Your task to perform on an android device: Go to ESPN.com Image 0: 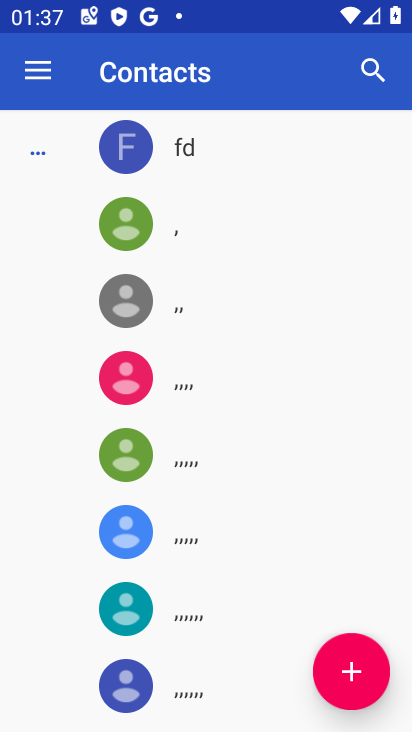
Step 0: press home button
Your task to perform on an android device: Go to ESPN.com Image 1: 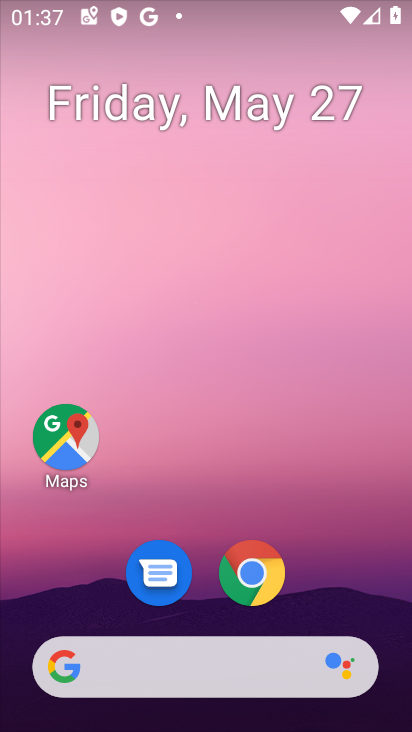
Step 1: drag from (215, 638) to (344, 13)
Your task to perform on an android device: Go to ESPN.com Image 2: 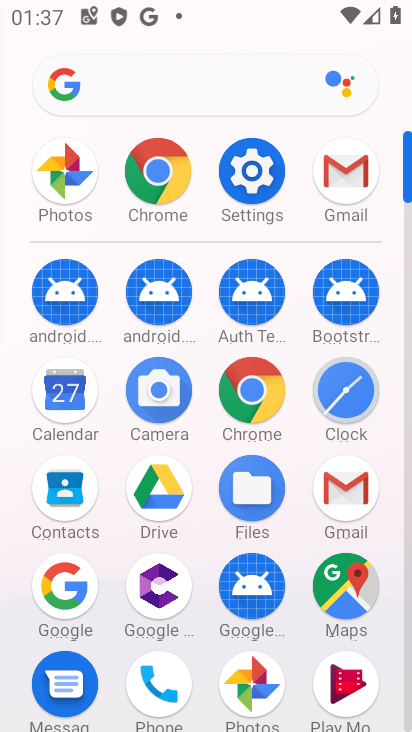
Step 2: click (242, 373)
Your task to perform on an android device: Go to ESPN.com Image 3: 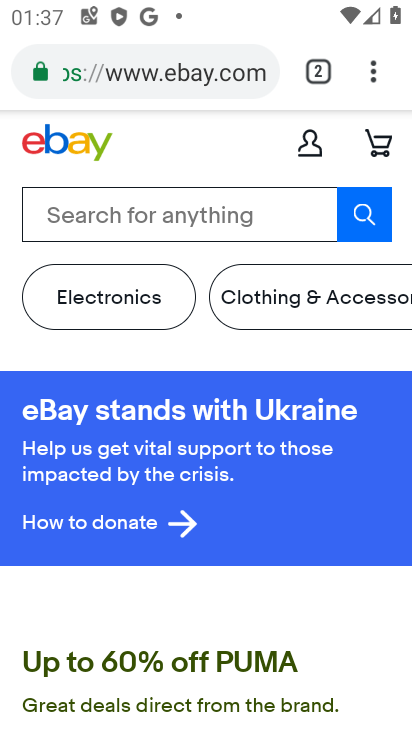
Step 3: click (305, 67)
Your task to perform on an android device: Go to ESPN.com Image 4: 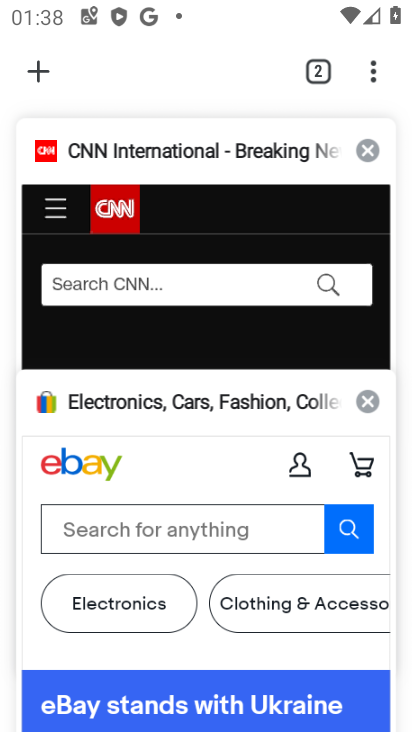
Step 4: click (33, 54)
Your task to perform on an android device: Go to ESPN.com Image 5: 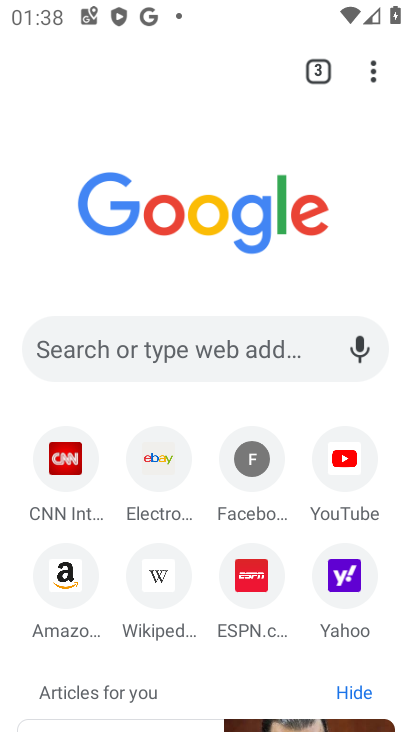
Step 5: click (241, 573)
Your task to perform on an android device: Go to ESPN.com Image 6: 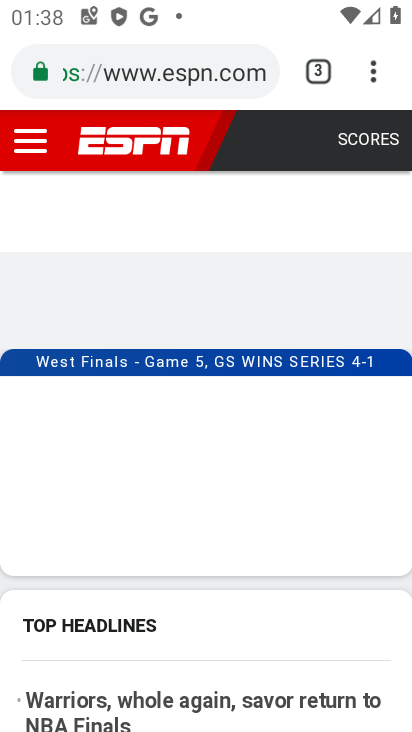
Step 6: task complete